Your task to perform on an android device: show emergency info Image 0: 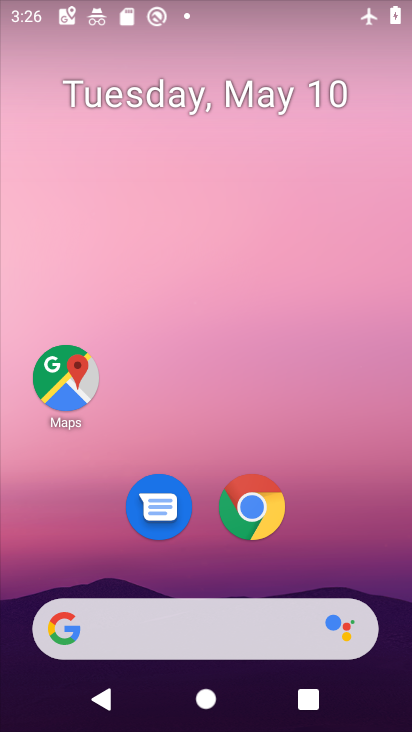
Step 0: drag from (226, 572) to (253, 278)
Your task to perform on an android device: show emergency info Image 1: 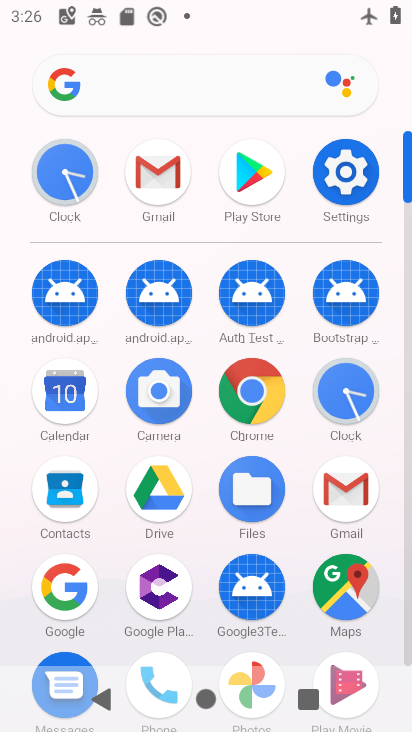
Step 1: drag from (199, 553) to (215, 271)
Your task to perform on an android device: show emergency info Image 2: 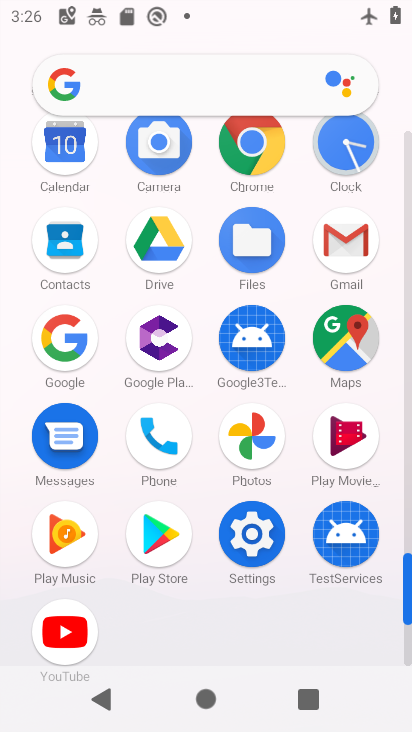
Step 2: click (248, 540)
Your task to perform on an android device: show emergency info Image 3: 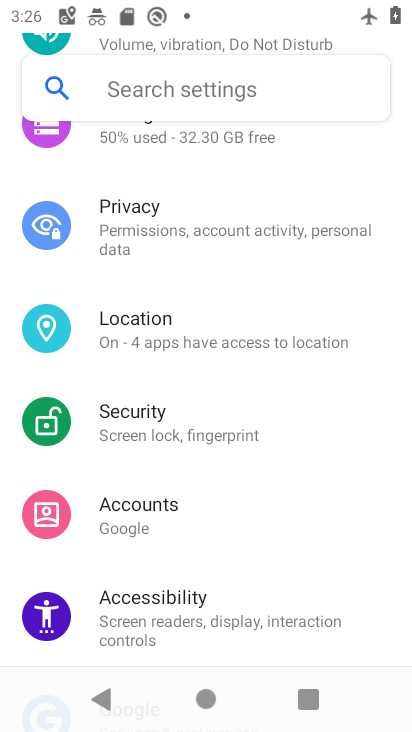
Step 3: drag from (197, 521) to (204, 264)
Your task to perform on an android device: show emergency info Image 4: 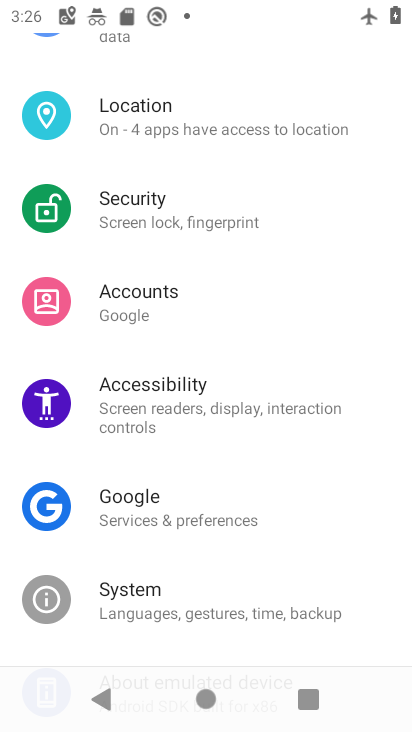
Step 4: drag from (185, 569) to (194, 337)
Your task to perform on an android device: show emergency info Image 5: 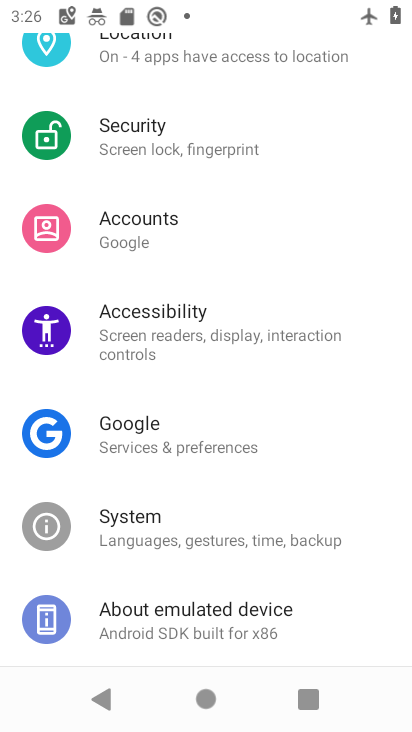
Step 5: click (161, 615)
Your task to perform on an android device: show emergency info Image 6: 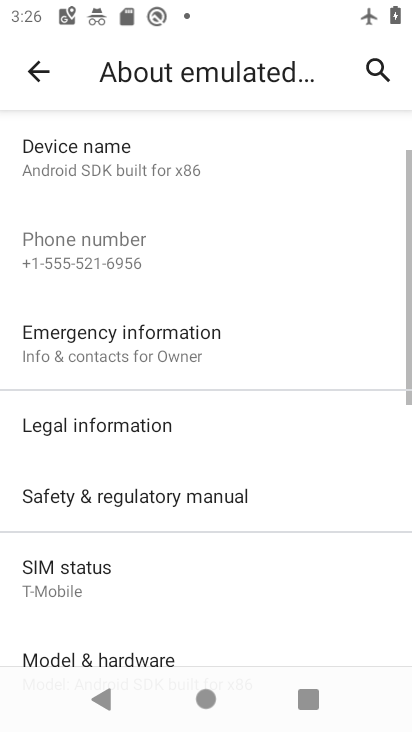
Step 6: click (164, 353)
Your task to perform on an android device: show emergency info Image 7: 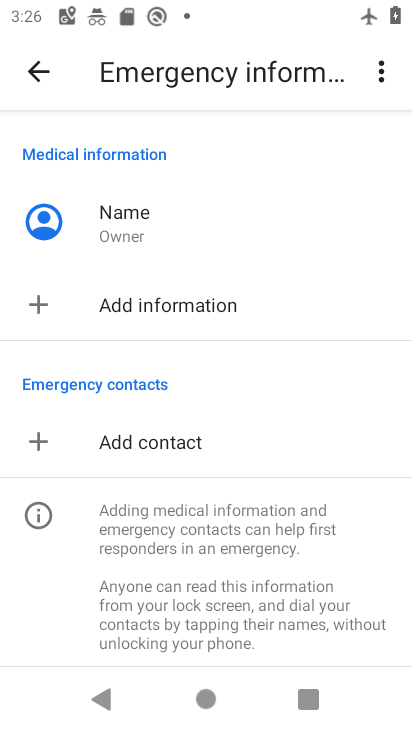
Step 7: task complete